Your task to perform on an android device: delete the emails in spam in the gmail app Image 0: 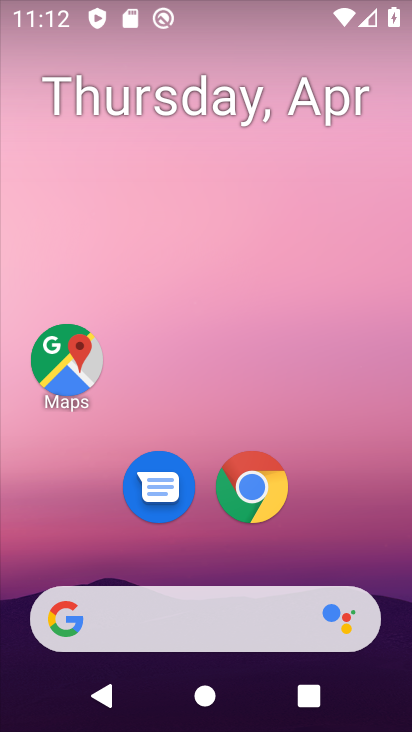
Step 0: drag from (368, 578) to (330, 182)
Your task to perform on an android device: delete the emails in spam in the gmail app Image 1: 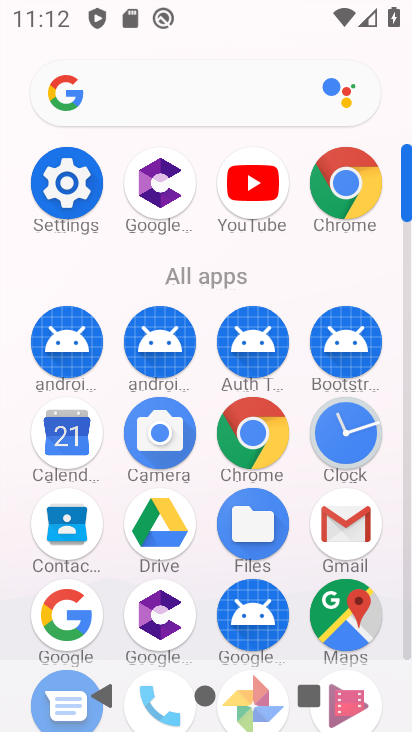
Step 1: click (338, 523)
Your task to perform on an android device: delete the emails in spam in the gmail app Image 2: 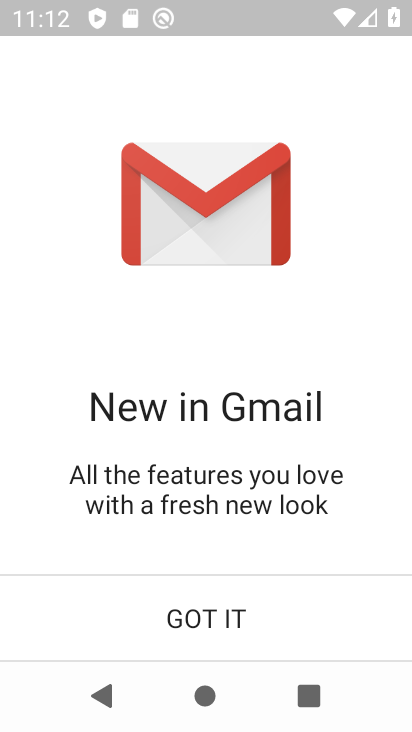
Step 2: click (208, 609)
Your task to perform on an android device: delete the emails in spam in the gmail app Image 3: 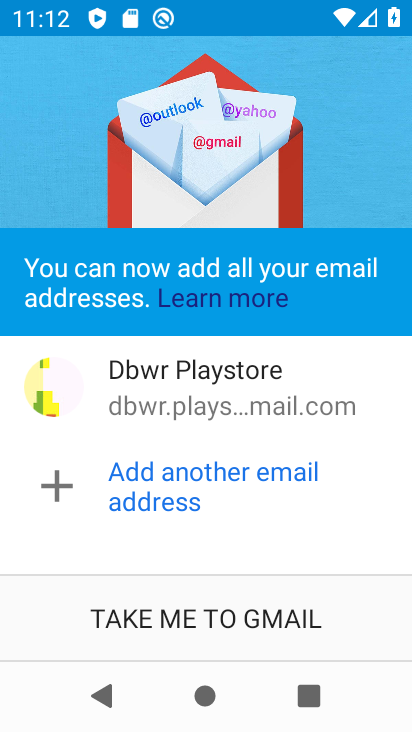
Step 3: click (223, 609)
Your task to perform on an android device: delete the emails in spam in the gmail app Image 4: 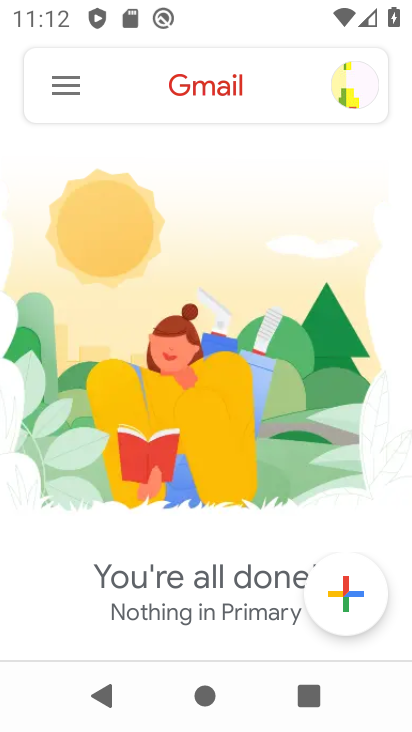
Step 4: click (69, 79)
Your task to perform on an android device: delete the emails in spam in the gmail app Image 5: 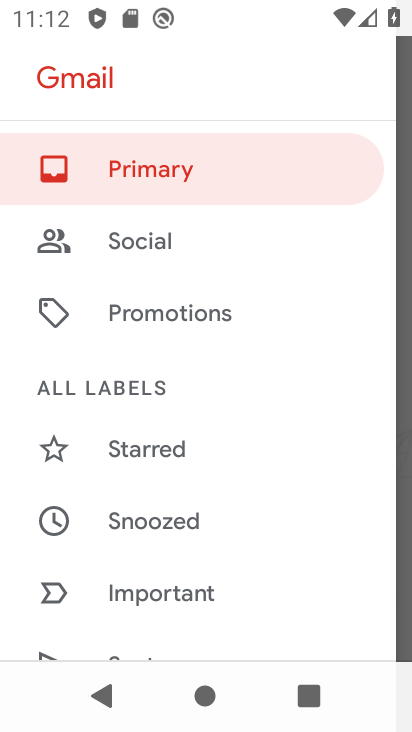
Step 5: drag from (197, 602) to (275, 295)
Your task to perform on an android device: delete the emails in spam in the gmail app Image 6: 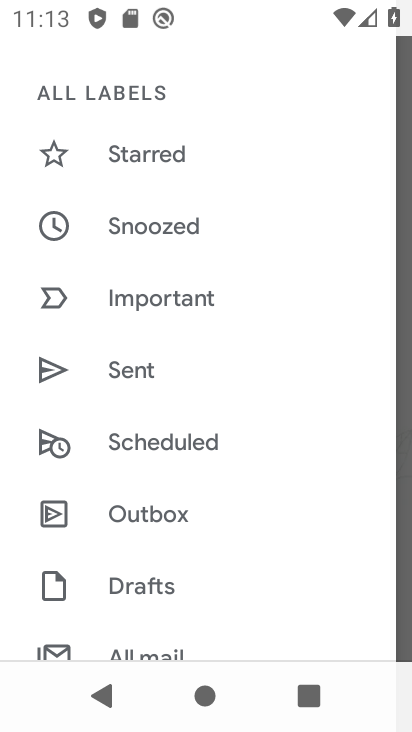
Step 6: drag from (141, 600) to (215, 272)
Your task to perform on an android device: delete the emails in spam in the gmail app Image 7: 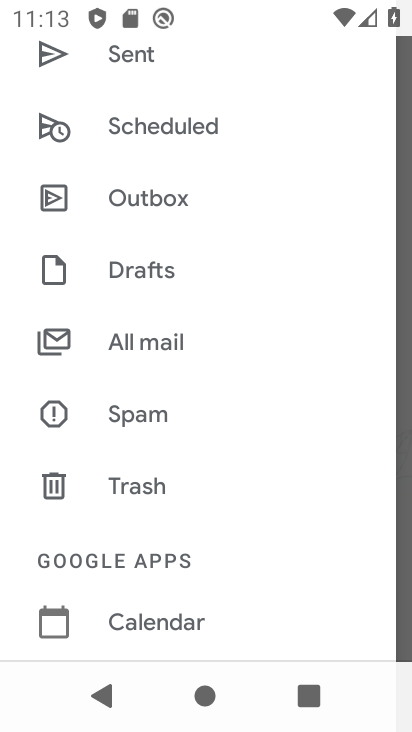
Step 7: click (166, 402)
Your task to perform on an android device: delete the emails in spam in the gmail app Image 8: 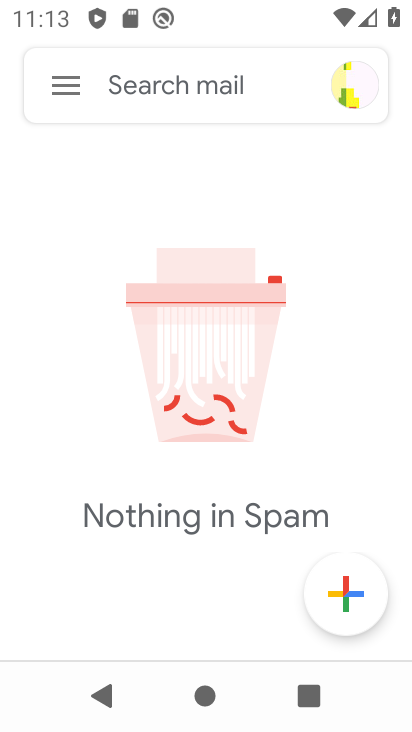
Step 8: task complete